Your task to perform on an android device: Open Yahoo.com Image 0: 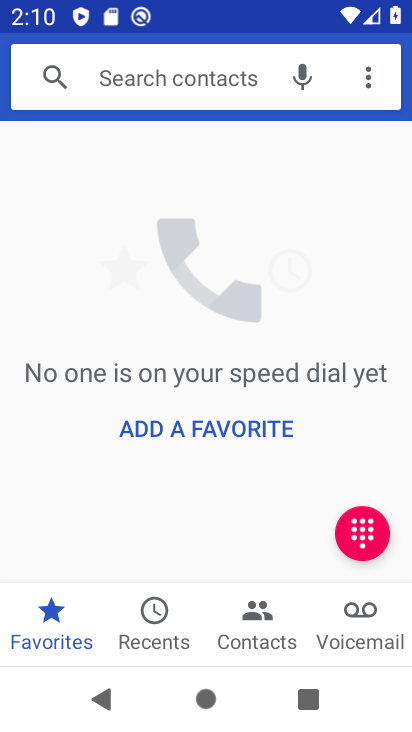
Step 0: press home button
Your task to perform on an android device: Open Yahoo.com Image 1: 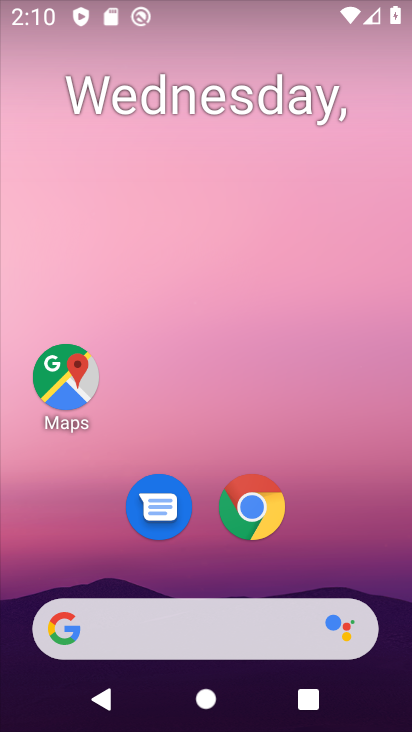
Step 1: click (252, 508)
Your task to perform on an android device: Open Yahoo.com Image 2: 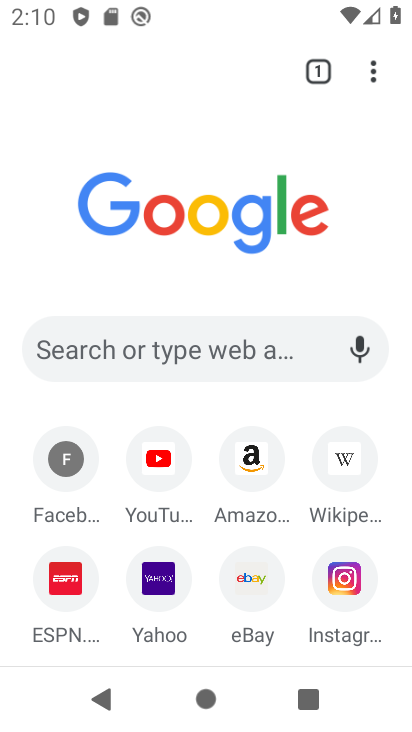
Step 2: click (149, 579)
Your task to perform on an android device: Open Yahoo.com Image 3: 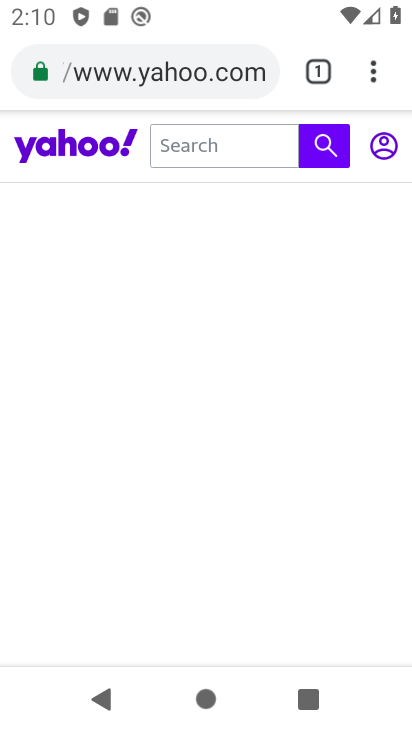
Step 3: task complete